Your task to perform on an android device: Go to Yahoo.com Image 0: 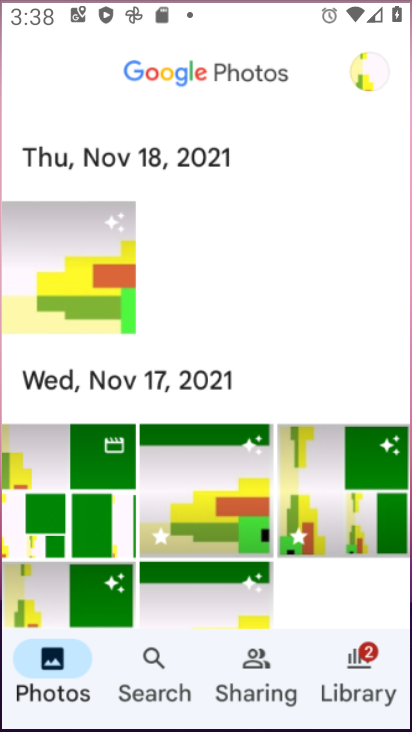
Step 0: drag from (248, 565) to (264, 226)
Your task to perform on an android device: Go to Yahoo.com Image 1: 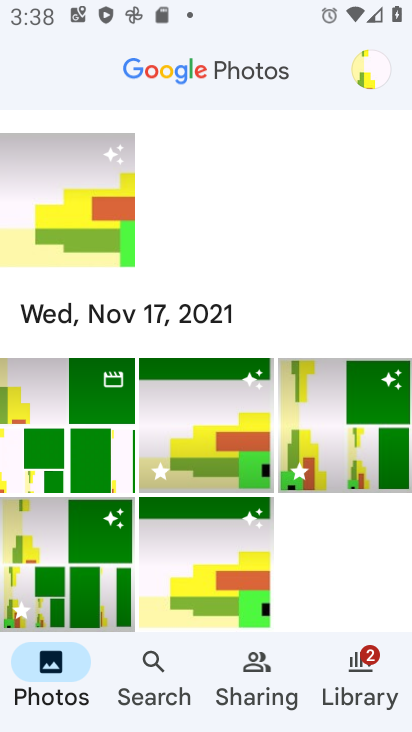
Step 1: press home button
Your task to perform on an android device: Go to Yahoo.com Image 2: 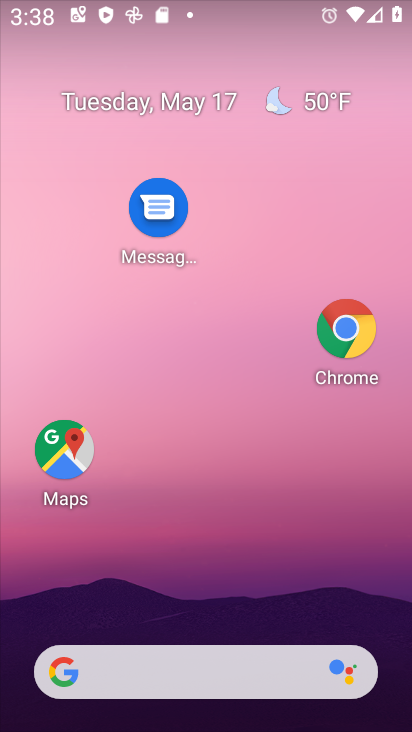
Step 2: click (357, 336)
Your task to perform on an android device: Go to Yahoo.com Image 3: 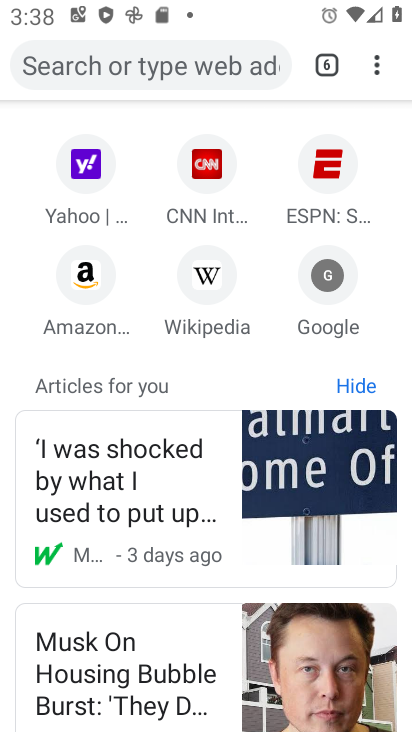
Step 3: click (104, 160)
Your task to perform on an android device: Go to Yahoo.com Image 4: 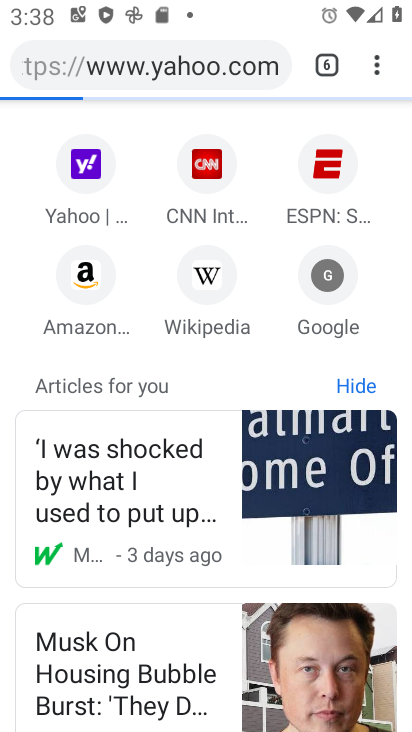
Step 4: task complete